Your task to perform on an android device: What is the recent news? Image 0: 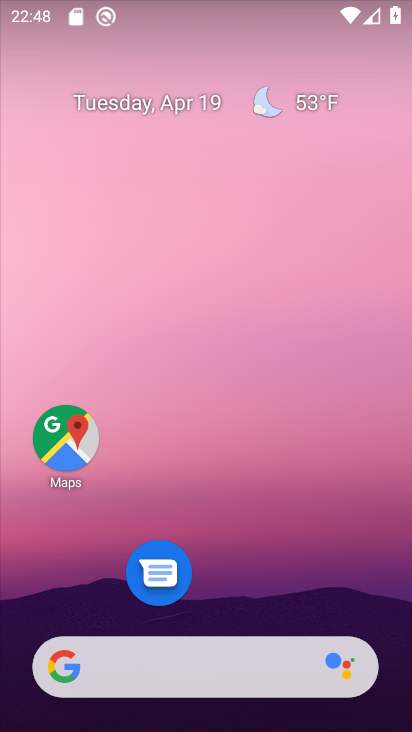
Step 0: drag from (109, 309) to (409, 309)
Your task to perform on an android device: What is the recent news? Image 1: 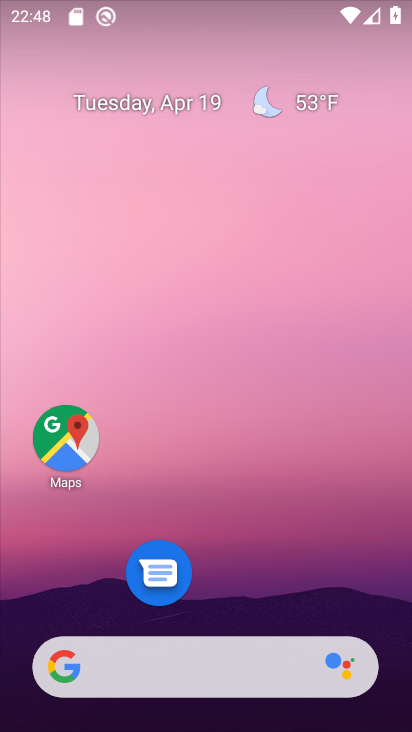
Step 1: drag from (110, 344) to (407, 347)
Your task to perform on an android device: What is the recent news? Image 2: 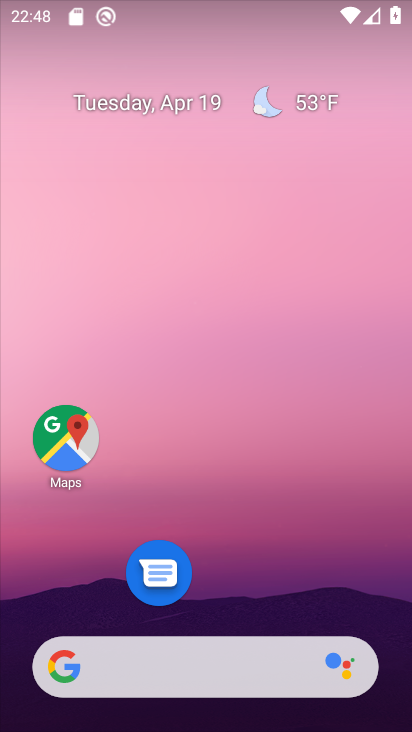
Step 2: drag from (21, 511) to (406, 441)
Your task to perform on an android device: What is the recent news? Image 3: 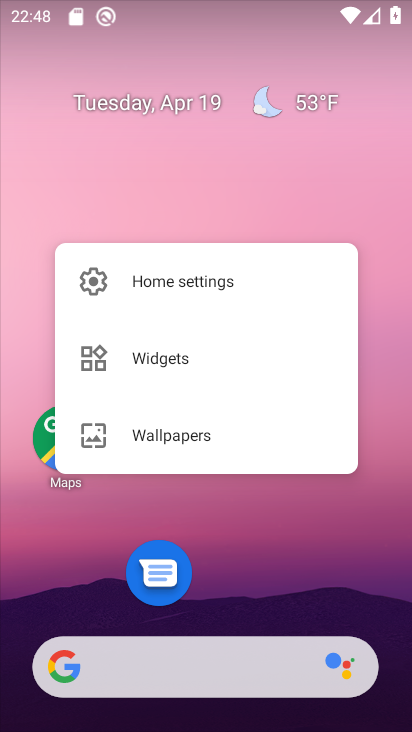
Step 3: click (106, 192)
Your task to perform on an android device: What is the recent news? Image 4: 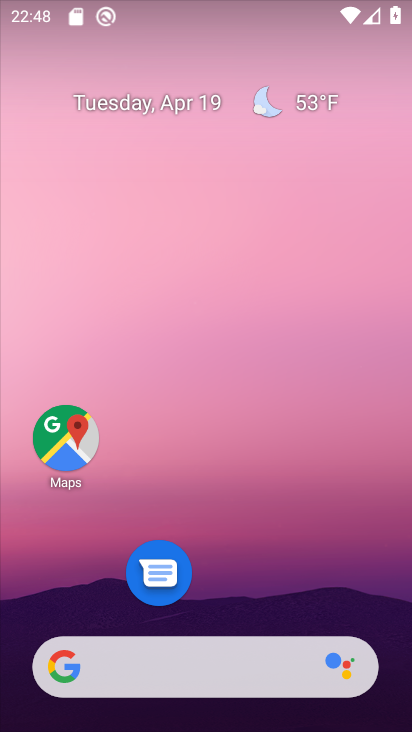
Step 4: task complete